Your task to perform on an android device: Go to eBay Image 0: 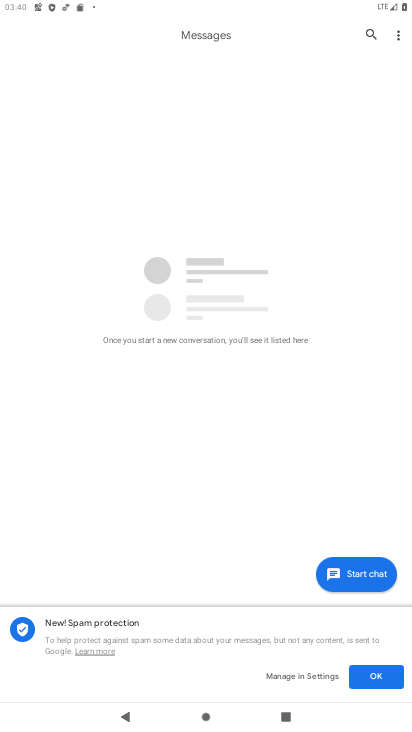
Step 0: press home button
Your task to perform on an android device: Go to eBay Image 1: 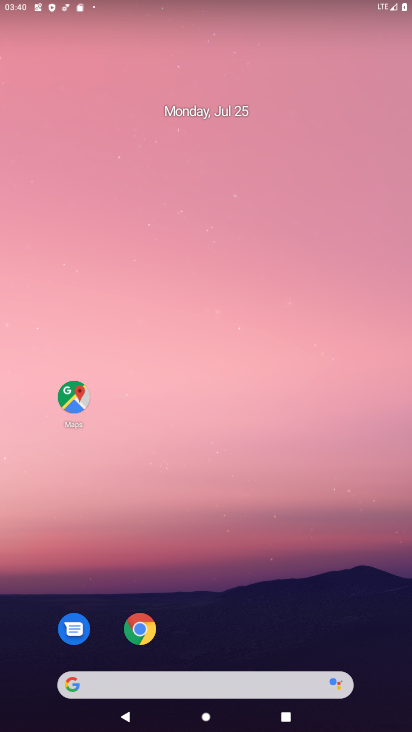
Step 1: click (141, 632)
Your task to perform on an android device: Go to eBay Image 2: 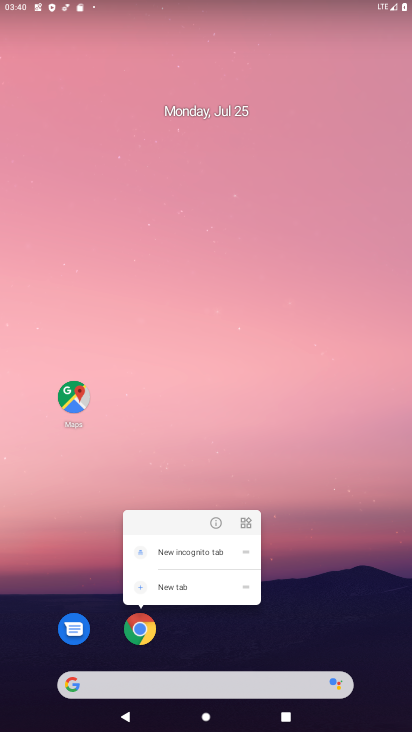
Step 2: click (141, 632)
Your task to perform on an android device: Go to eBay Image 3: 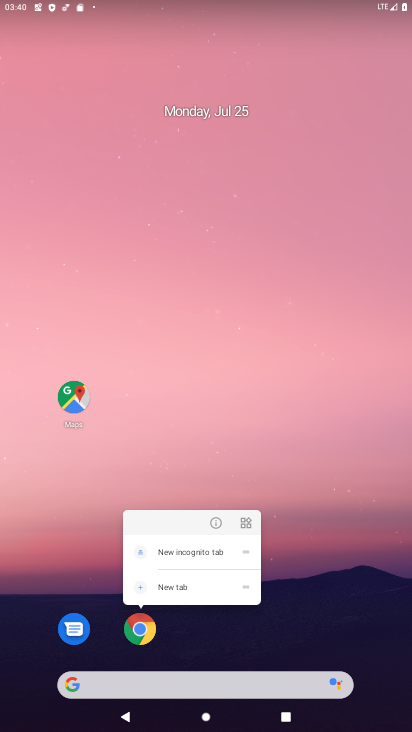
Step 3: click (141, 631)
Your task to perform on an android device: Go to eBay Image 4: 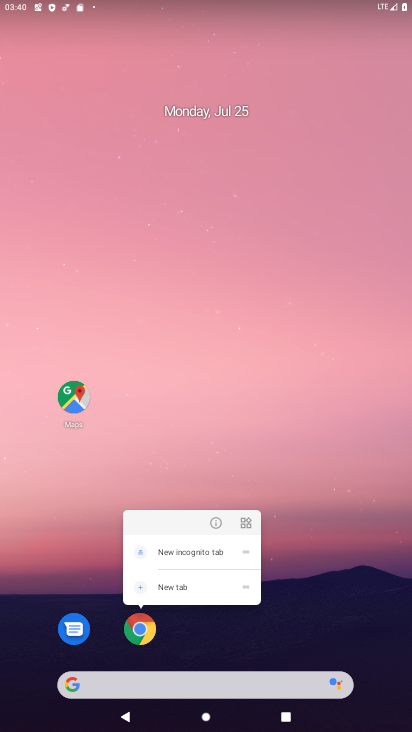
Step 4: click (141, 631)
Your task to perform on an android device: Go to eBay Image 5: 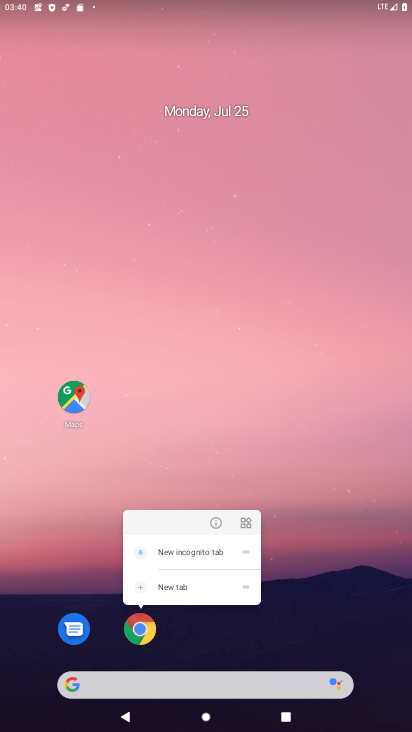
Step 5: click (141, 631)
Your task to perform on an android device: Go to eBay Image 6: 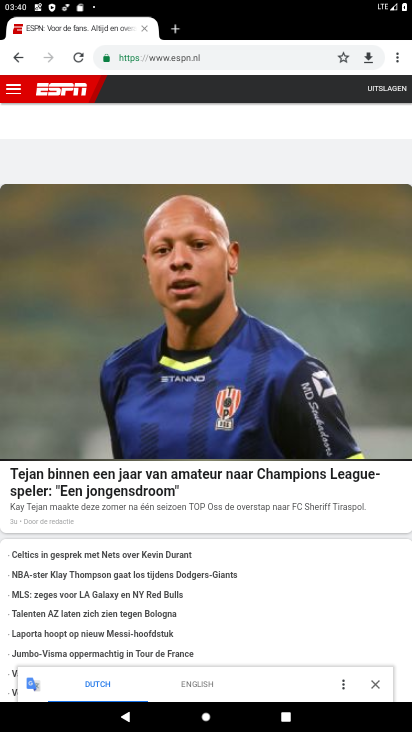
Step 6: click (134, 63)
Your task to perform on an android device: Go to eBay Image 7: 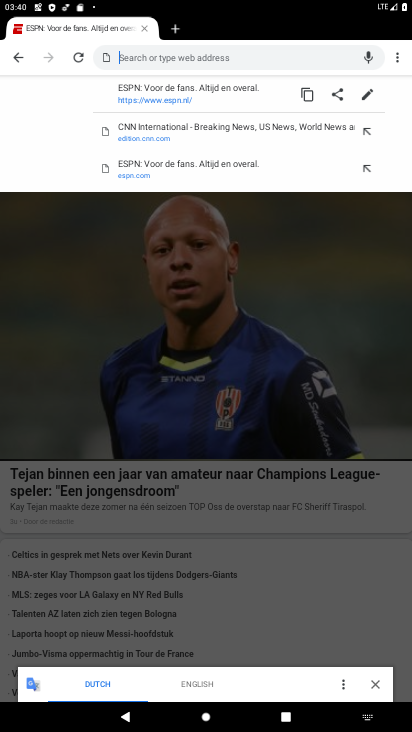
Step 7: type "ebay"
Your task to perform on an android device: Go to eBay Image 8: 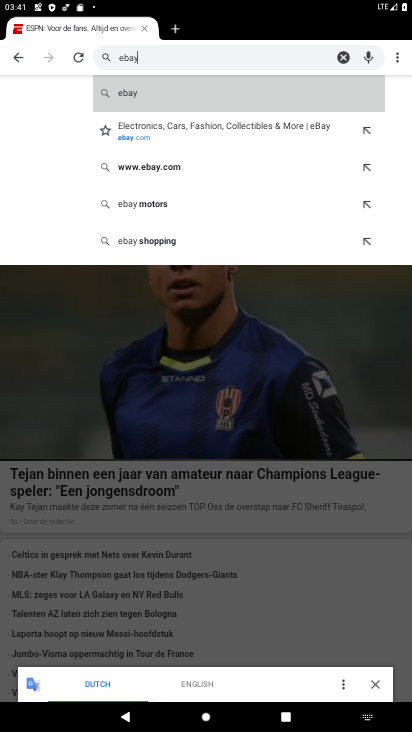
Step 8: click (116, 99)
Your task to perform on an android device: Go to eBay Image 9: 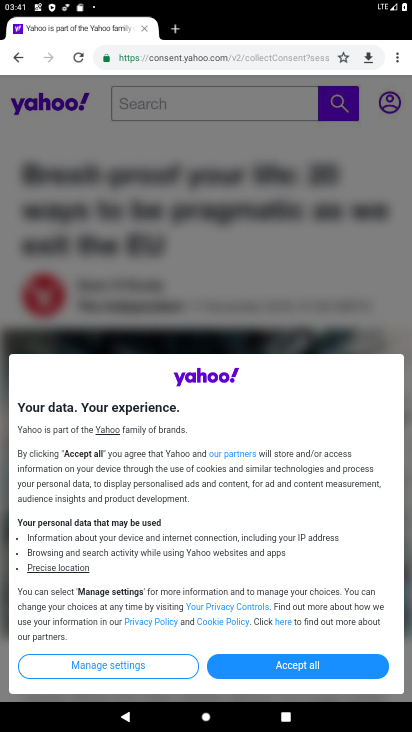
Step 9: click (264, 662)
Your task to perform on an android device: Go to eBay Image 10: 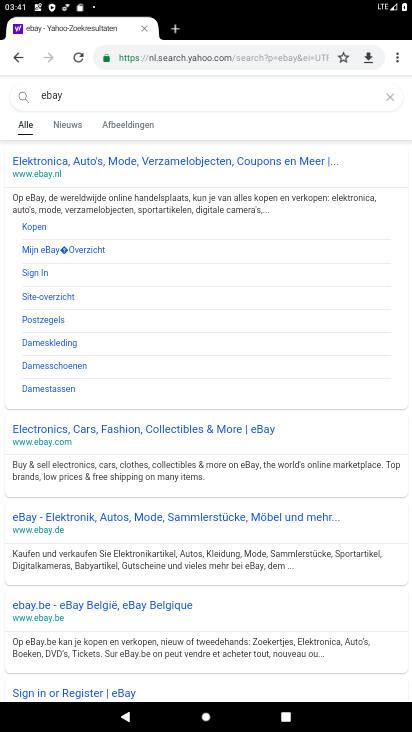
Step 10: click (47, 175)
Your task to perform on an android device: Go to eBay Image 11: 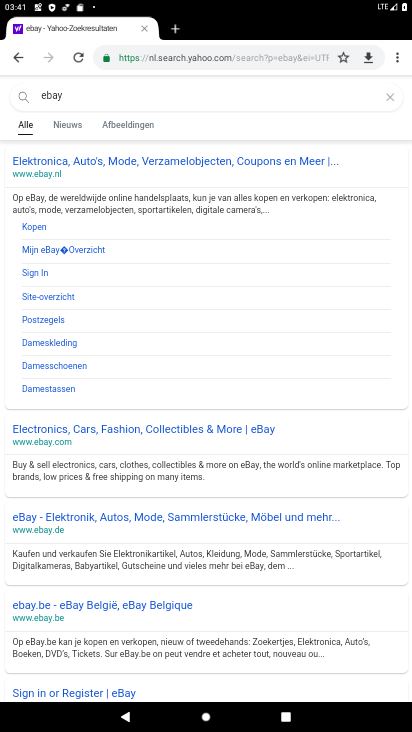
Step 11: click (39, 162)
Your task to perform on an android device: Go to eBay Image 12: 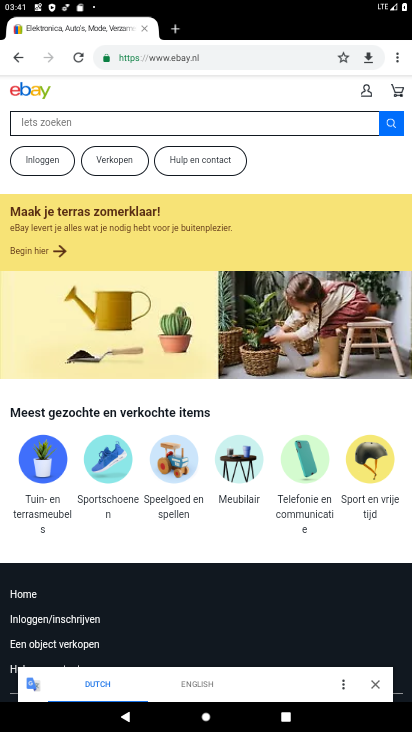
Step 12: task complete